Your task to perform on an android device: Open wifi settings Image 0: 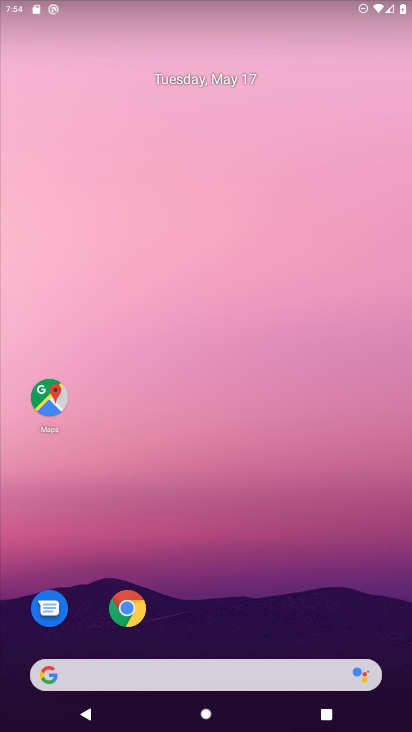
Step 0: drag from (209, 624) to (245, 99)
Your task to perform on an android device: Open wifi settings Image 1: 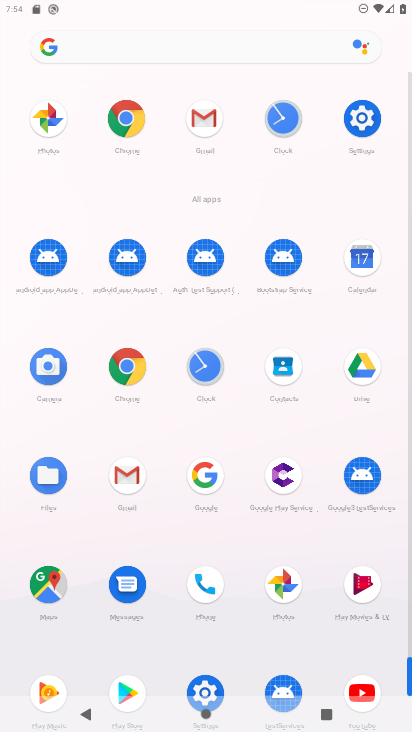
Step 1: click (365, 134)
Your task to perform on an android device: Open wifi settings Image 2: 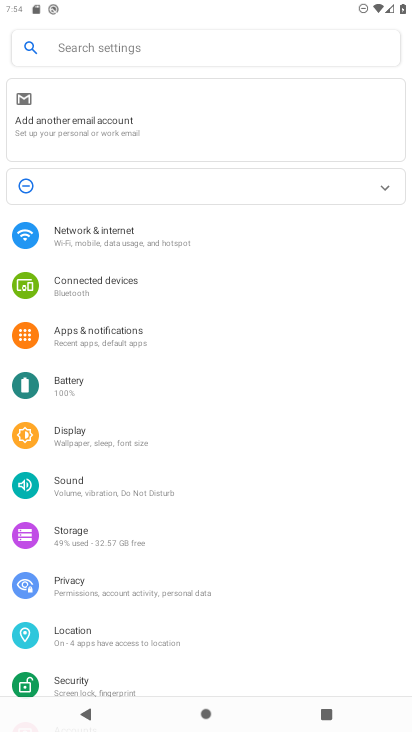
Step 2: click (125, 238)
Your task to perform on an android device: Open wifi settings Image 3: 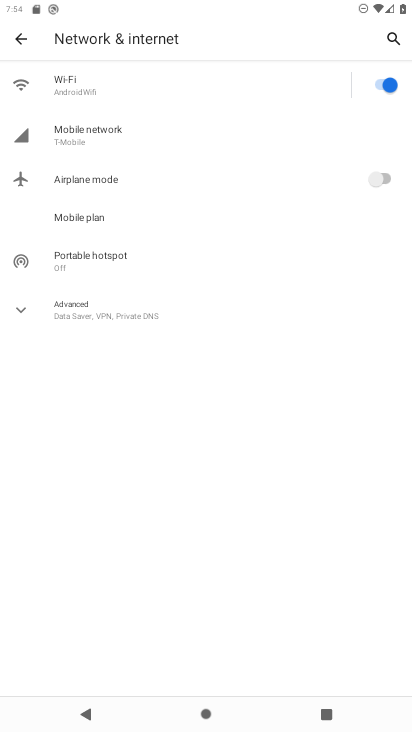
Step 3: click (92, 93)
Your task to perform on an android device: Open wifi settings Image 4: 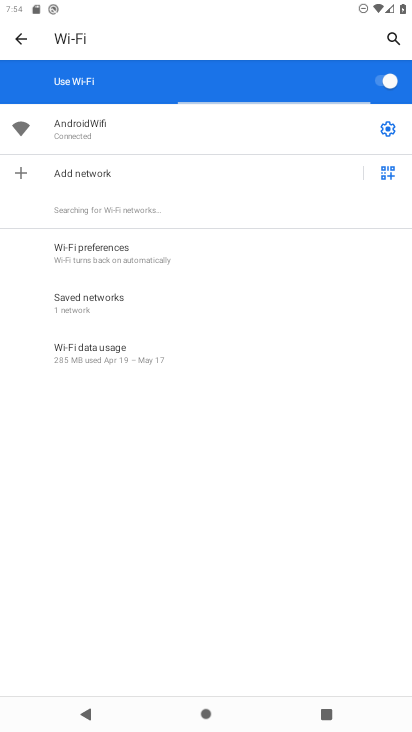
Step 4: task complete